Your task to perform on an android device: toggle pop-ups in chrome Image 0: 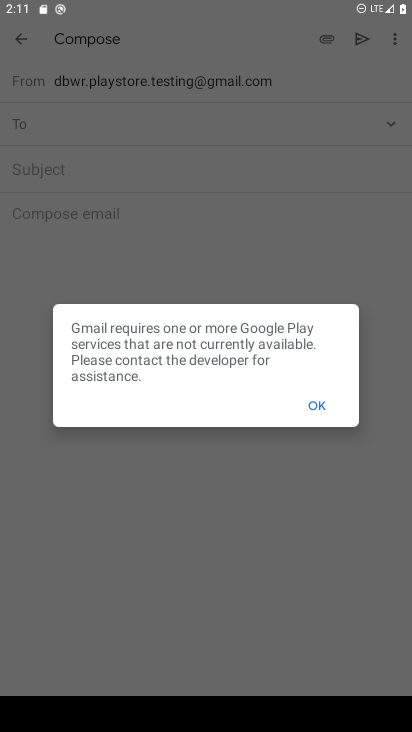
Step 0: drag from (176, 659) to (203, 1)
Your task to perform on an android device: toggle pop-ups in chrome Image 1: 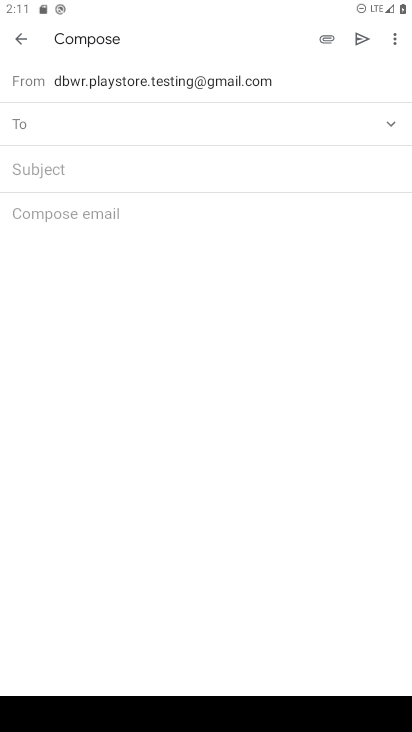
Step 1: press home button
Your task to perform on an android device: toggle pop-ups in chrome Image 2: 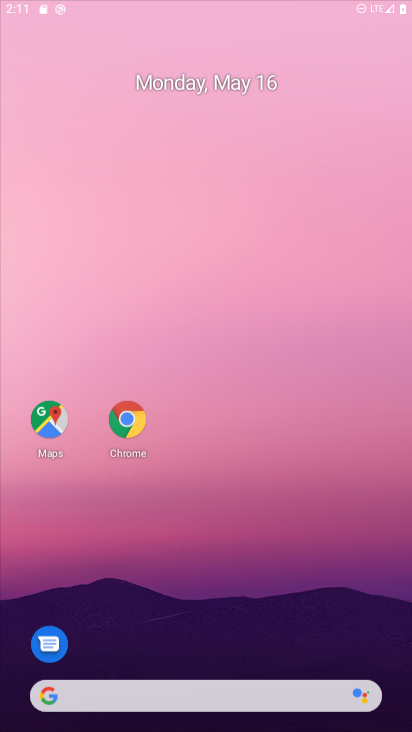
Step 2: drag from (75, 555) to (205, 111)
Your task to perform on an android device: toggle pop-ups in chrome Image 3: 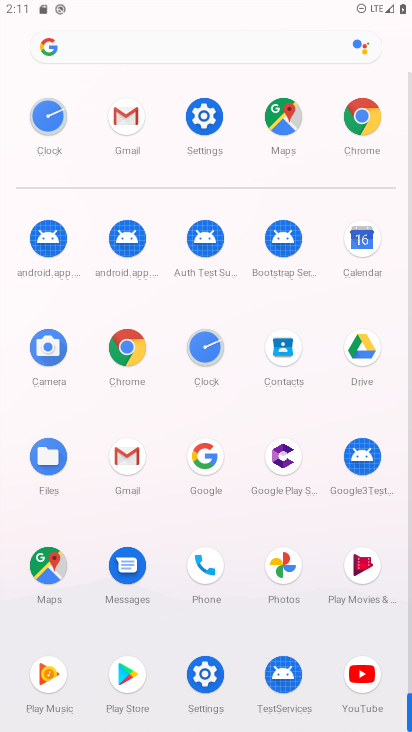
Step 3: click (358, 120)
Your task to perform on an android device: toggle pop-ups in chrome Image 4: 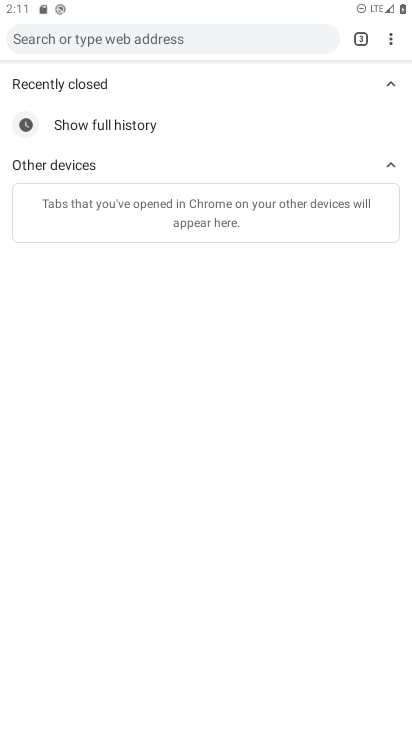
Step 4: click (389, 39)
Your task to perform on an android device: toggle pop-ups in chrome Image 5: 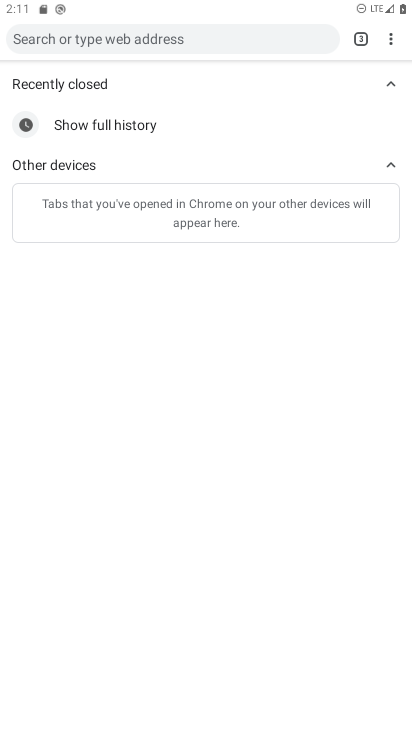
Step 5: click (391, 43)
Your task to perform on an android device: toggle pop-ups in chrome Image 6: 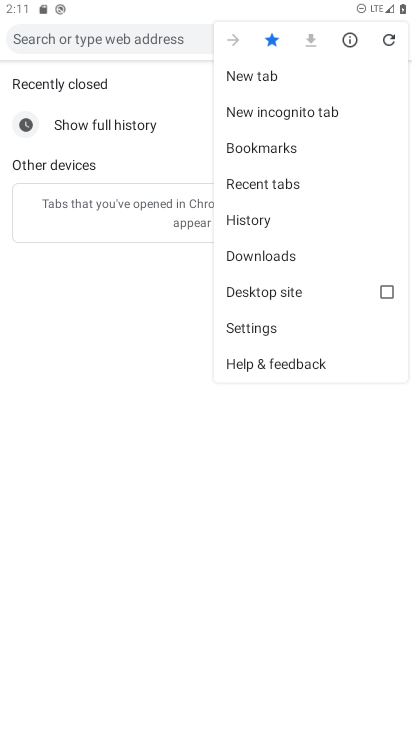
Step 6: click (273, 321)
Your task to perform on an android device: toggle pop-ups in chrome Image 7: 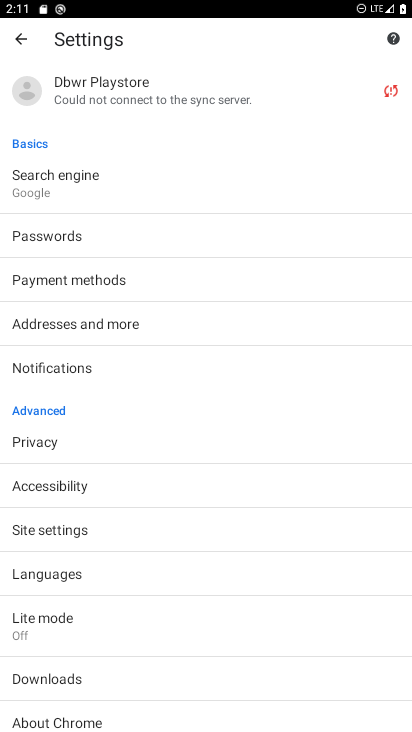
Step 7: click (67, 532)
Your task to perform on an android device: toggle pop-ups in chrome Image 8: 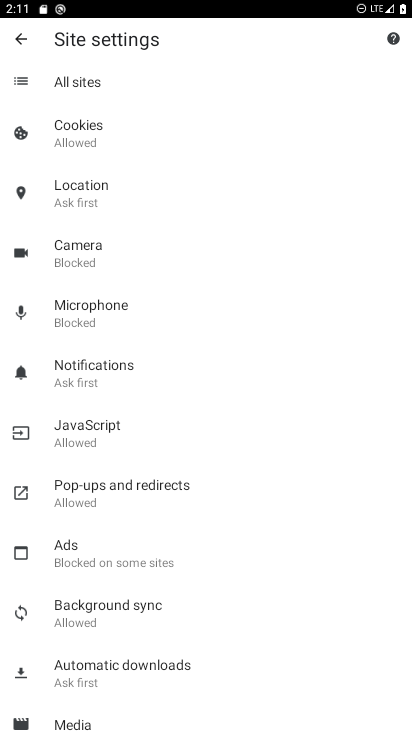
Step 8: click (78, 496)
Your task to perform on an android device: toggle pop-ups in chrome Image 9: 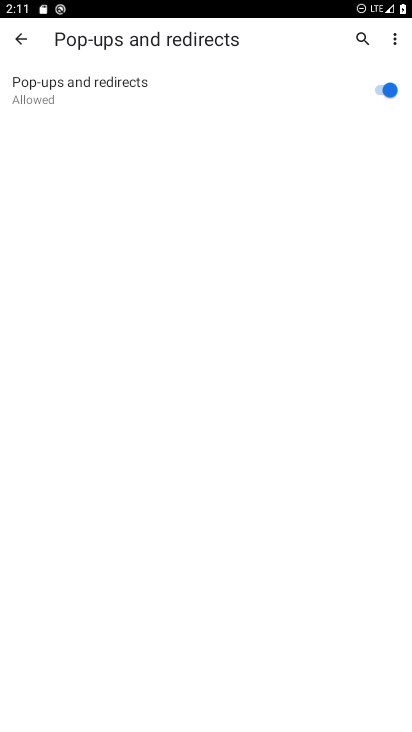
Step 9: click (377, 77)
Your task to perform on an android device: toggle pop-ups in chrome Image 10: 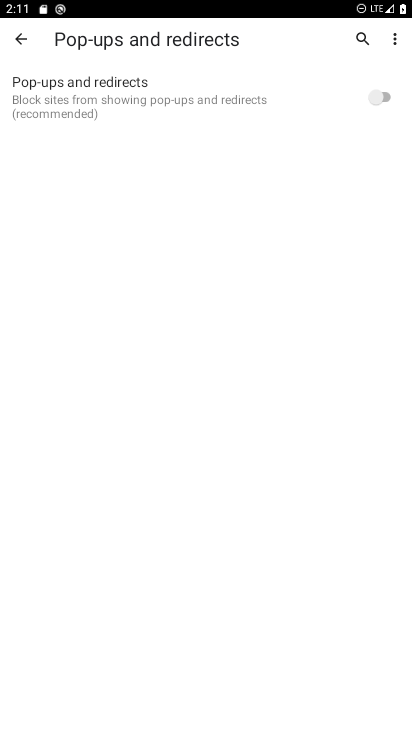
Step 10: task complete